Your task to perform on an android device: Go to Reddit.com Image 0: 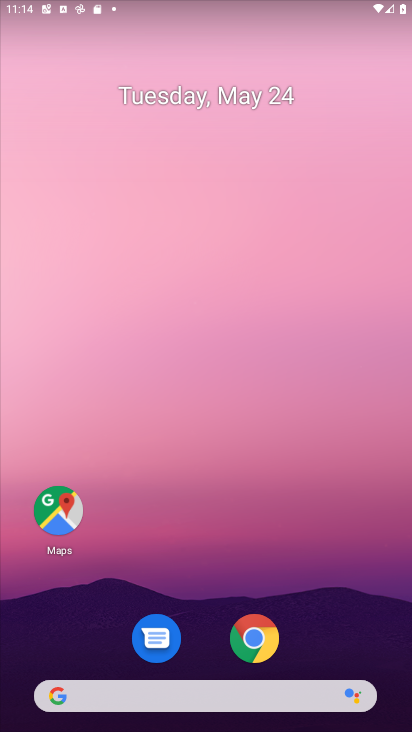
Step 0: drag from (283, 695) to (339, 15)
Your task to perform on an android device: Go to Reddit.com Image 1: 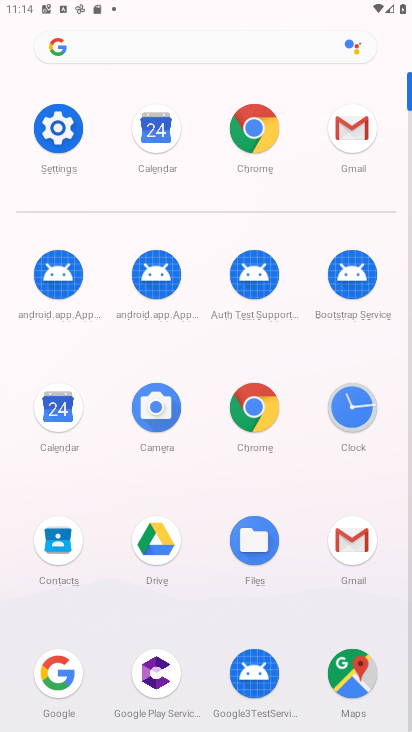
Step 1: click (254, 42)
Your task to perform on an android device: Go to Reddit.com Image 2: 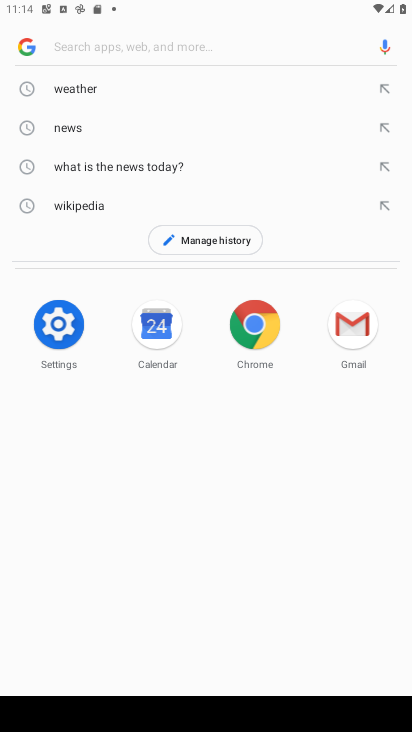
Step 2: type "reddit.com"
Your task to perform on an android device: Go to Reddit.com Image 3: 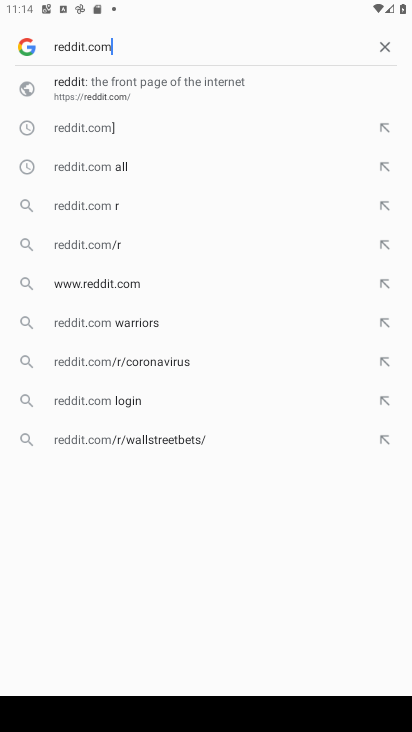
Step 3: click (119, 85)
Your task to perform on an android device: Go to Reddit.com Image 4: 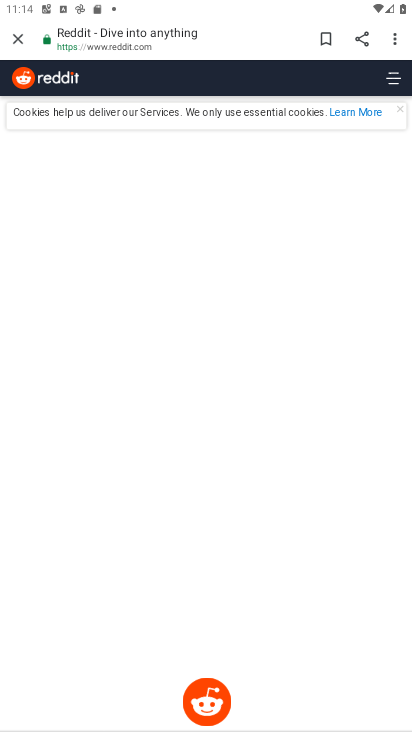
Step 4: task complete